Your task to perform on an android device: Open Google Maps and go to "Timeline" Image 0: 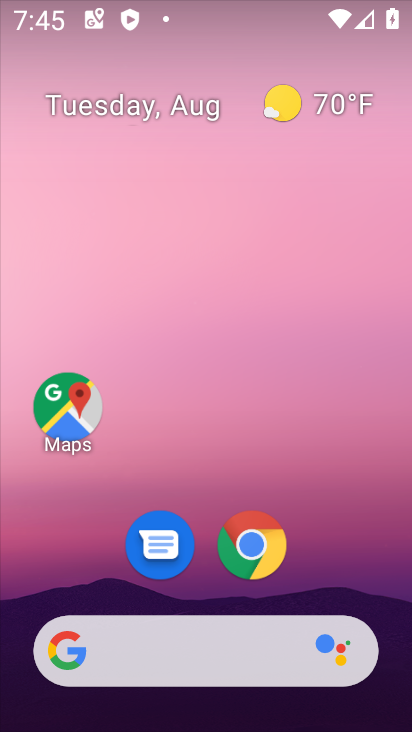
Step 0: drag from (259, 624) to (295, 44)
Your task to perform on an android device: Open Google Maps and go to "Timeline" Image 1: 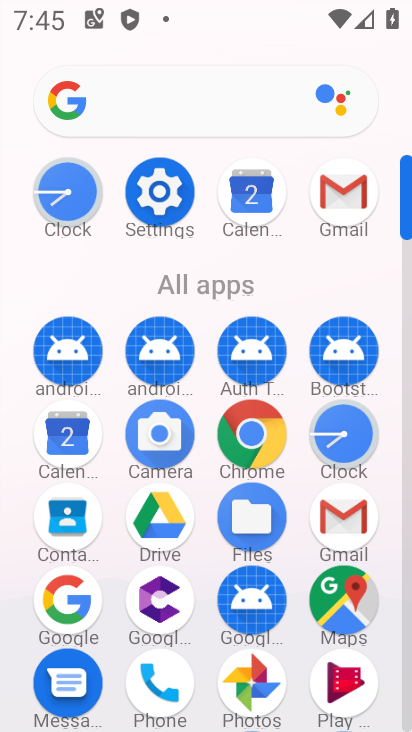
Step 1: click (343, 604)
Your task to perform on an android device: Open Google Maps and go to "Timeline" Image 2: 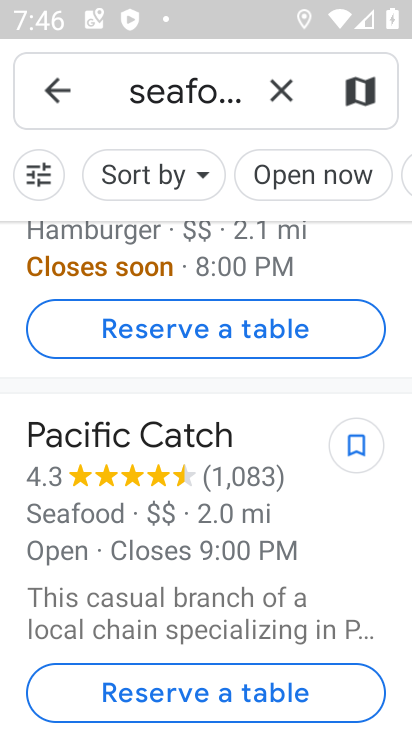
Step 2: click (55, 95)
Your task to perform on an android device: Open Google Maps and go to "Timeline" Image 3: 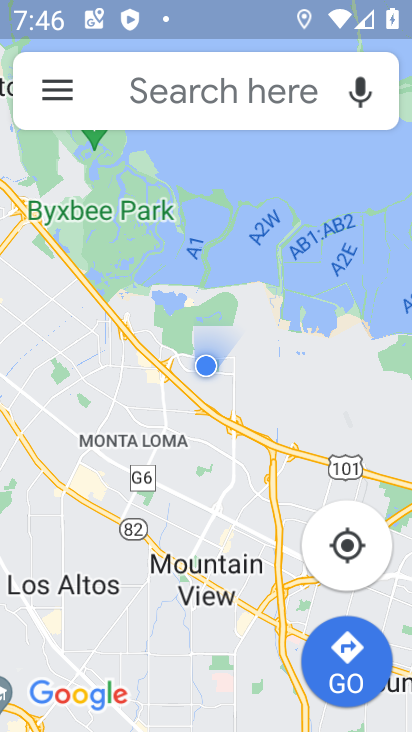
Step 3: click (55, 96)
Your task to perform on an android device: Open Google Maps and go to "Timeline" Image 4: 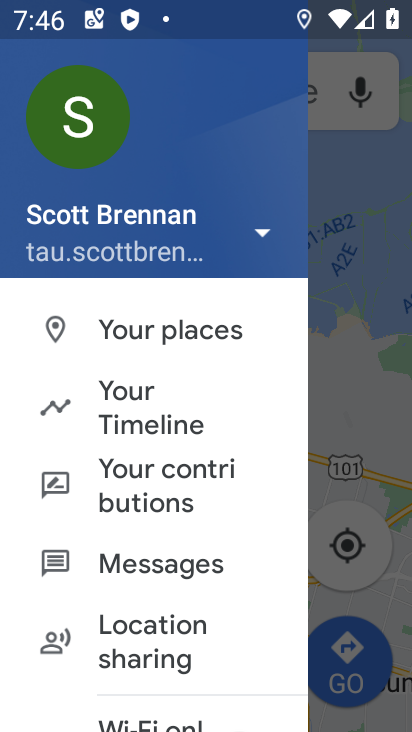
Step 4: click (151, 421)
Your task to perform on an android device: Open Google Maps and go to "Timeline" Image 5: 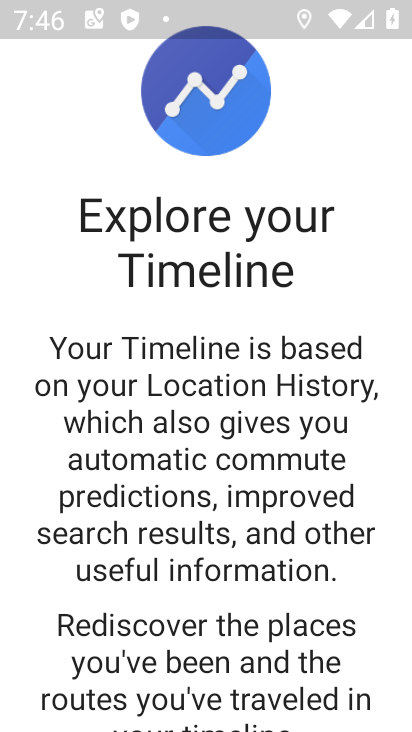
Step 5: drag from (243, 520) to (283, 170)
Your task to perform on an android device: Open Google Maps and go to "Timeline" Image 6: 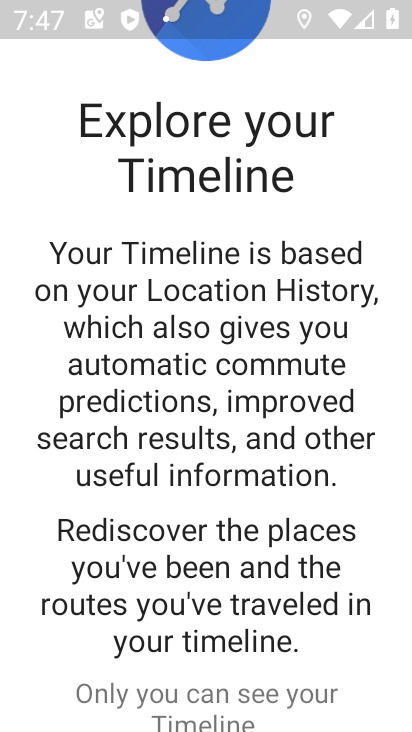
Step 6: drag from (251, 465) to (248, 8)
Your task to perform on an android device: Open Google Maps and go to "Timeline" Image 7: 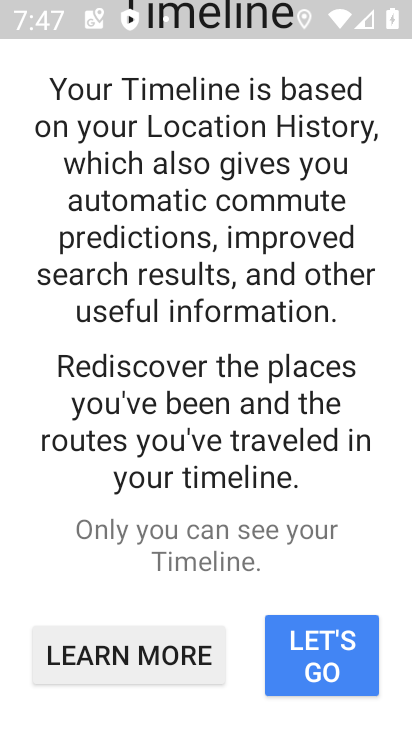
Step 7: click (316, 669)
Your task to perform on an android device: Open Google Maps and go to "Timeline" Image 8: 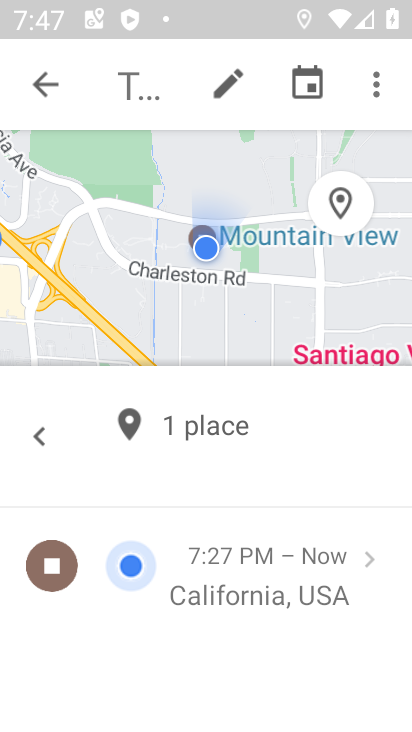
Step 8: task complete